Your task to perform on an android device: toggle show notifications on the lock screen Image 0: 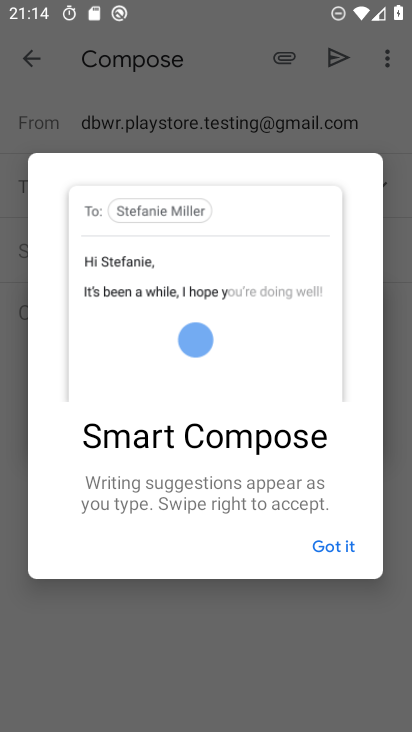
Step 0: press home button
Your task to perform on an android device: toggle show notifications on the lock screen Image 1: 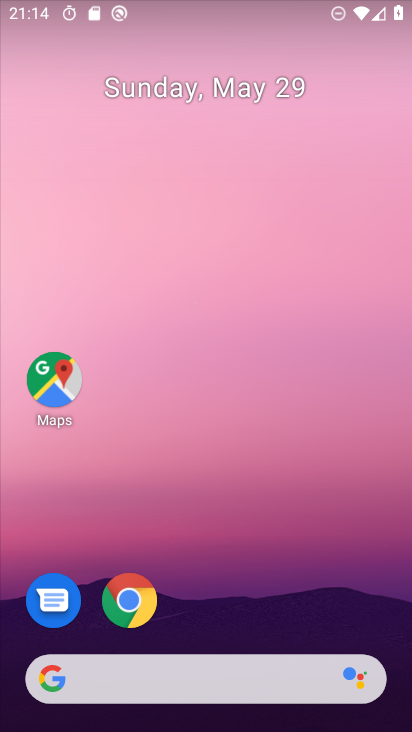
Step 1: drag from (346, 457) to (338, 89)
Your task to perform on an android device: toggle show notifications on the lock screen Image 2: 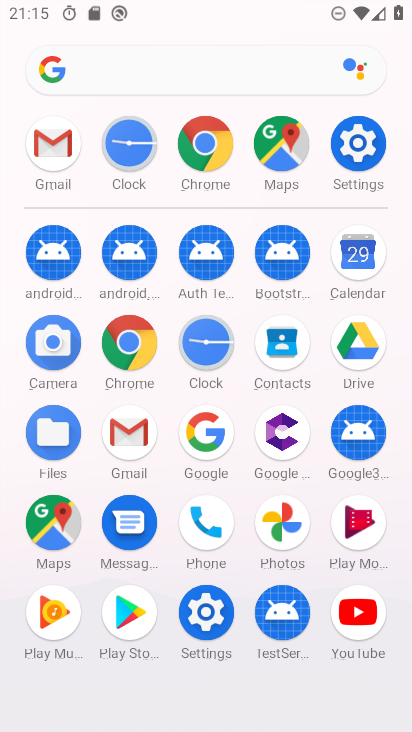
Step 2: click (202, 627)
Your task to perform on an android device: toggle show notifications on the lock screen Image 3: 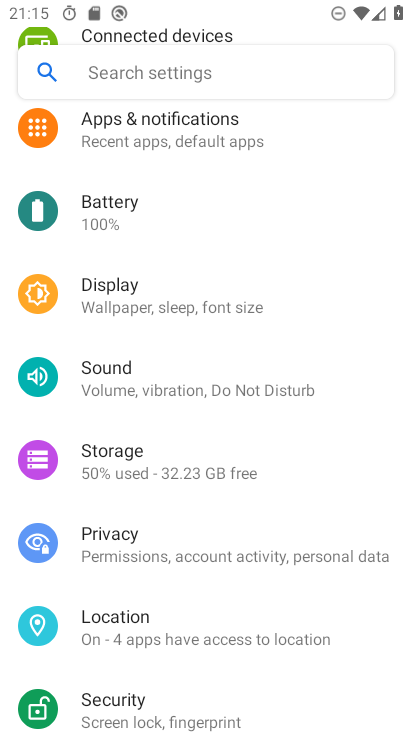
Step 3: drag from (224, 255) to (206, 560)
Your task to perform on an android device: toggle show notifications on the lock screen Image 4: 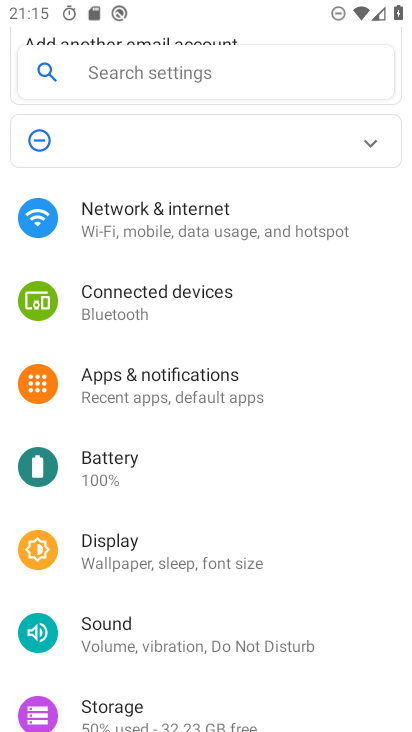
Step 4: click (194, 383)
Your task to perform on an android device: toggle show notifications on the lock screen Image 5: 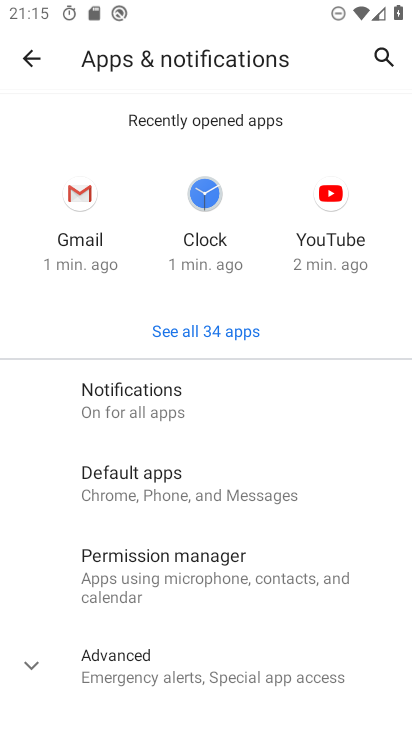
Step 5: click (192, 390)
Your task to perform on an android device: toggle show notifications on the lock screen Image 6: 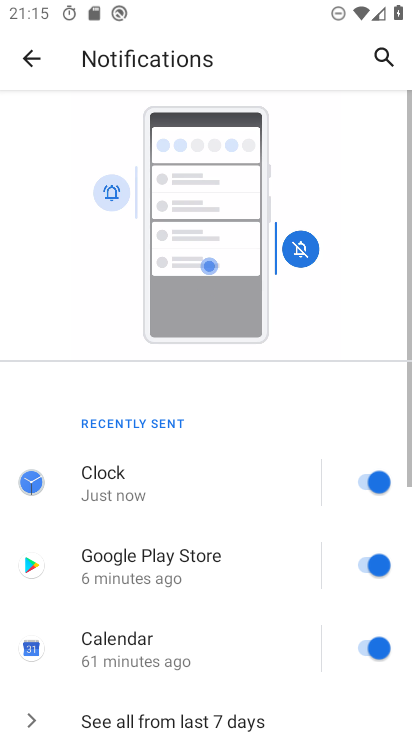
Step 6: task complete